Your task to perform on an android device: Open internet settings Image 0: 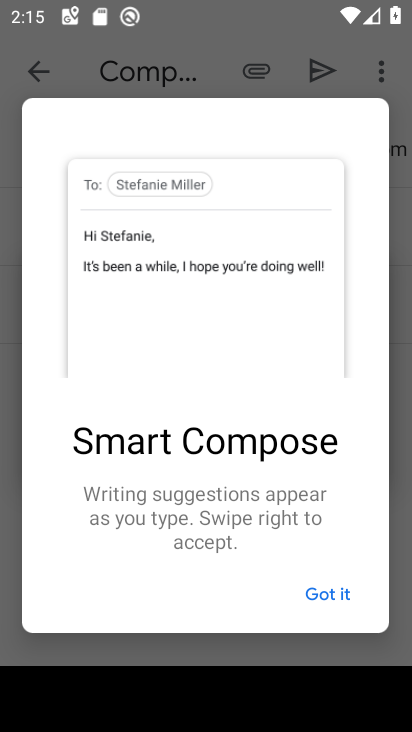
Step 0: press home button
Your task to perform on an android device: Open internet settings Image 1: 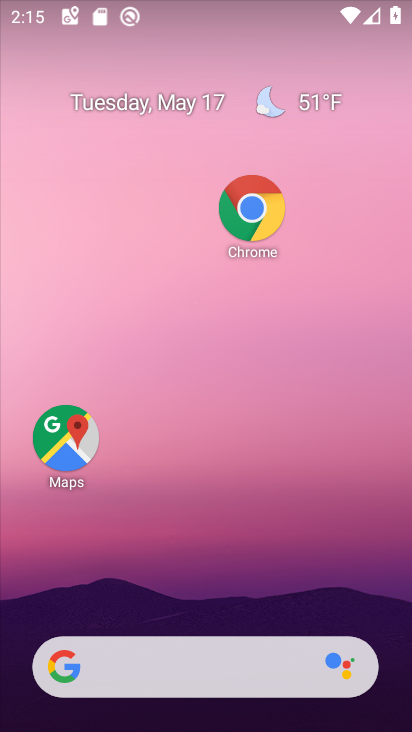
Step 1: drag from (224, 623) to (209, 81)
Your task to perform on an android device: Open internet settings Image 2: 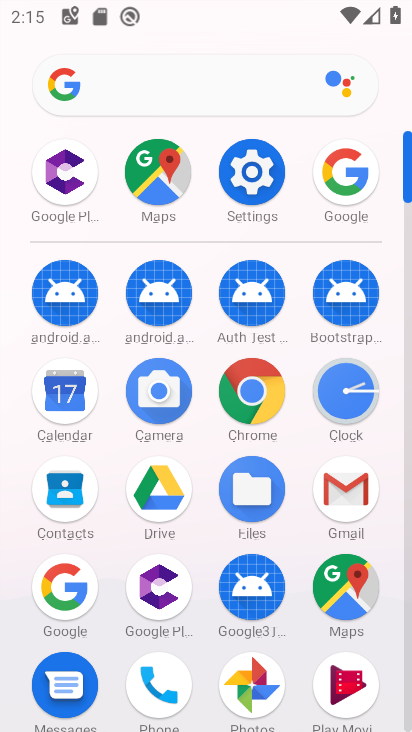
Step 2: click (232, 184)
Your task to perform on an android device: Open internet settings Image 3: 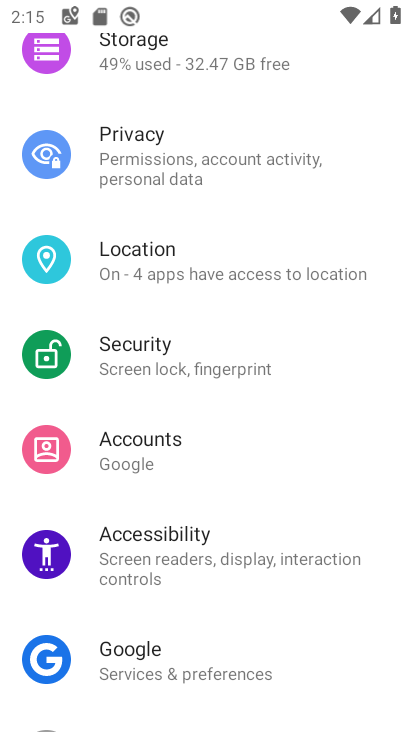
Step 3: drag from (255, 165) to (217, 472)
Your task to perform on an android device: Open internet settings Image 4: 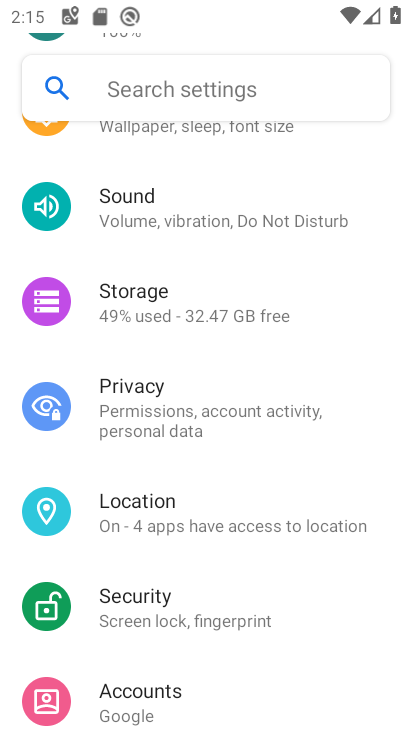
Step 4: drag from (180, 228) to (285, 26)
Your task to perform on an android device: Open internet settings Image 5: 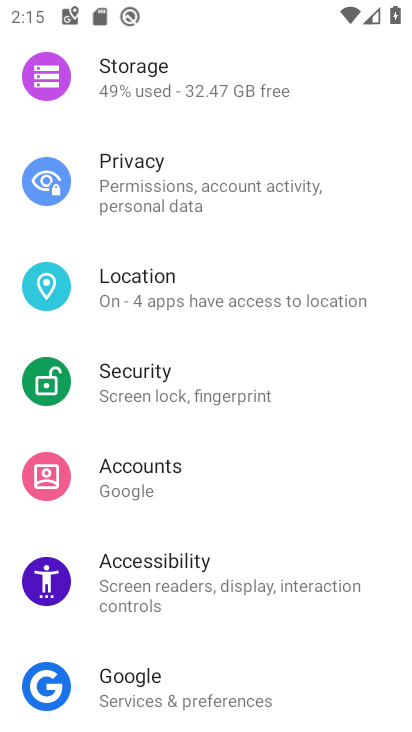
Step 5: drag from (156, 211) to (171, 671)
Your task to perform on an android device: Open internet settings Image 6: 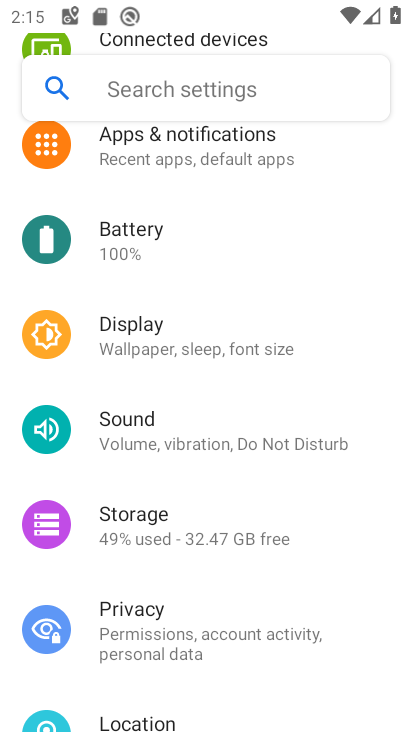
Step 6: drag from (191, 170) to (187, 617)
Your task to perform on an android device: Open internet settings Image 7: 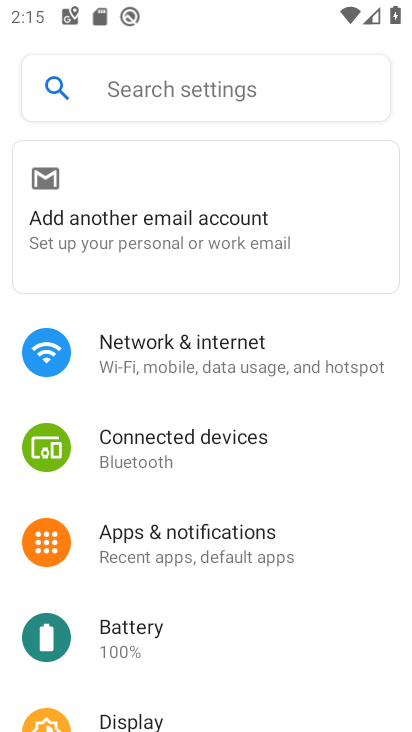
Step 7: click (212, 325)
Your task to perform on an android device: Open internet settings Image 8: 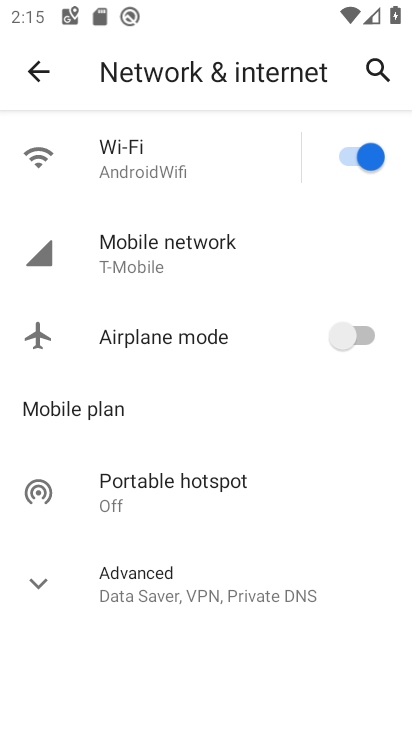
Step 8: click (206, 250)
Your task to perform on an android device: Open internet settings Image 9: 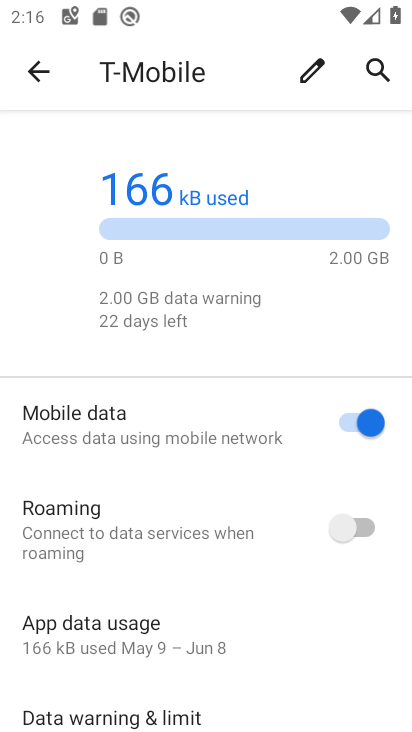
Step 9: task complete